Your task to perform on an android device: snooze an email in the gmail app Image 0: 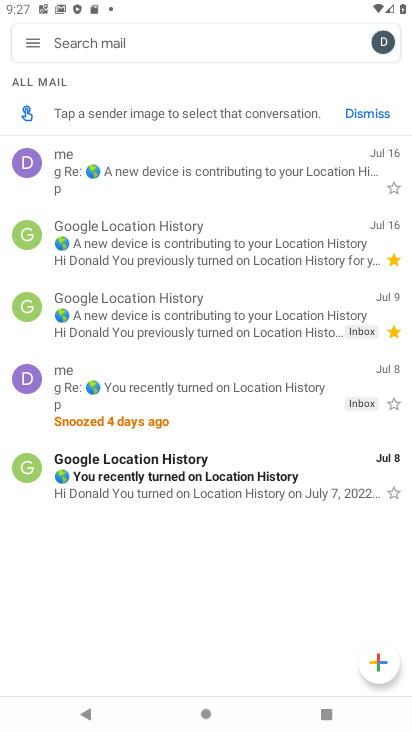
Step 0: press home button
Your task to perform on an android device: snooze an email in the gmail app Image 1: 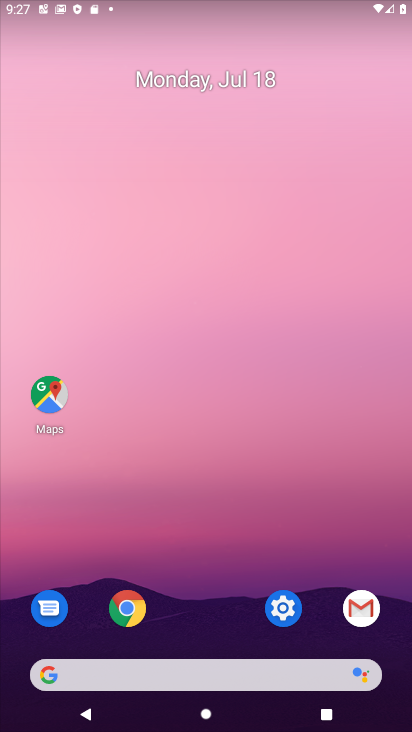
Step 1: click (360, 602)
Your task to perform on an android device: snooze an email in the gmail app Image 2: 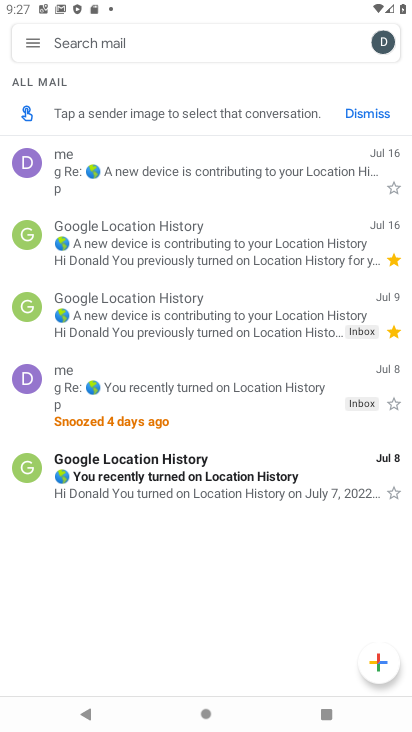
Step 2: click (38, 46)
Your task to perform on an android device: snooze an email in the gmail app Image 3: 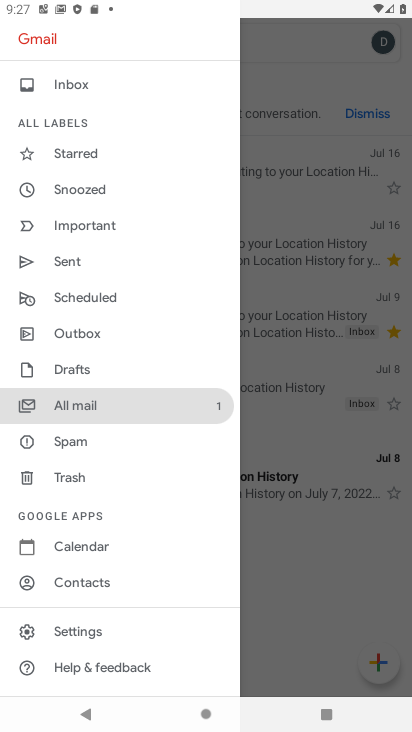
Step 3: click (340, 129)
Your task to perform on an android device: snooze an email in the gmail app Image 4: 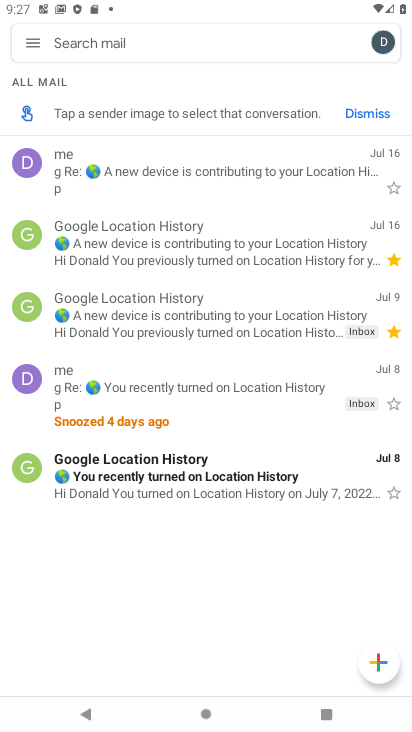
Step 4: click (199, 185)
Your task to perform on an android device: snooze an email in the gmail app Image 5: 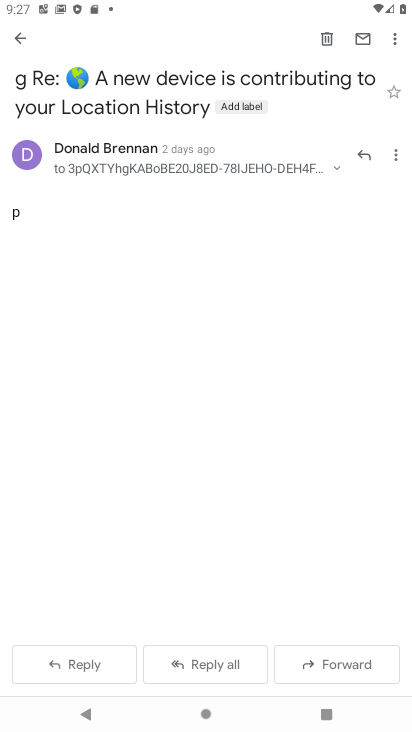
Step 5: click (389, 48)
Your task to perform on an android device: snooze an email in the gmail app Image 6: 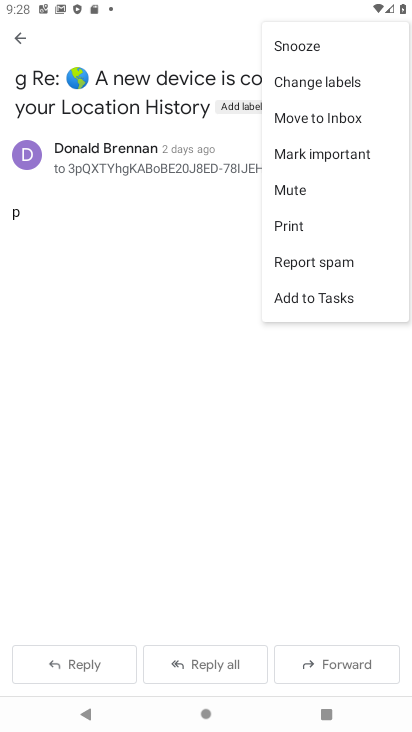
Step 6: click (324, 45)
Your task to perform on an android device: snooze an email in the gmail app Image 7: 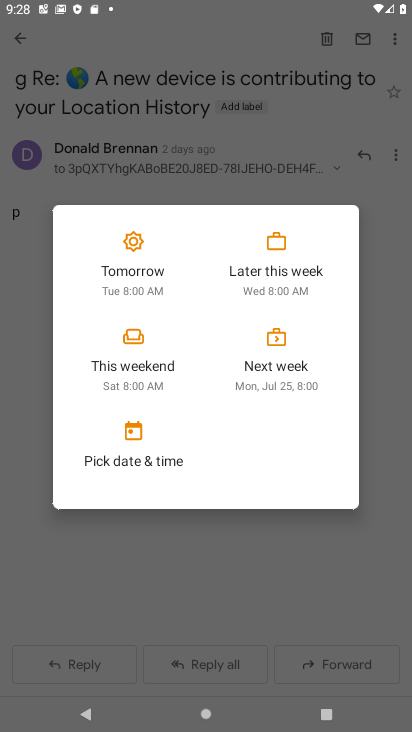
Step 7: click (145, 275)
Your task to perform on an android device: snooze an email in the gmail app Image 8: 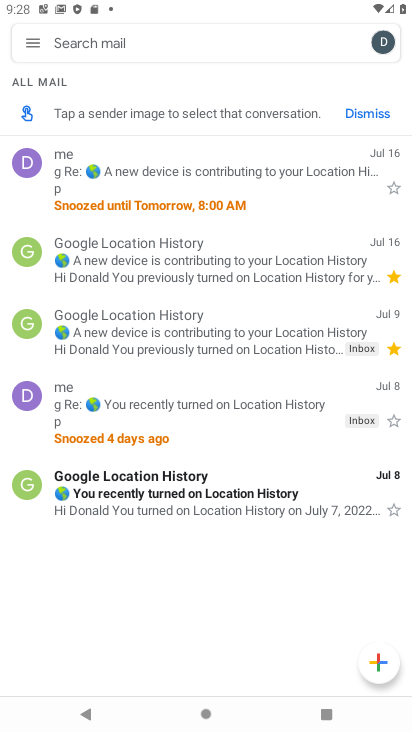
Step 8: task complete